Your task to perform on an android device: Open the stopwatch Image 0: 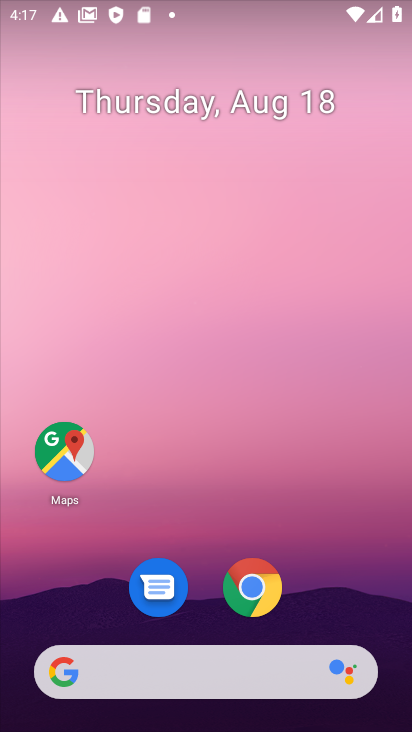
Step 0: press home button
Your task to perform on an android device: Open the stopwatch Image 1: 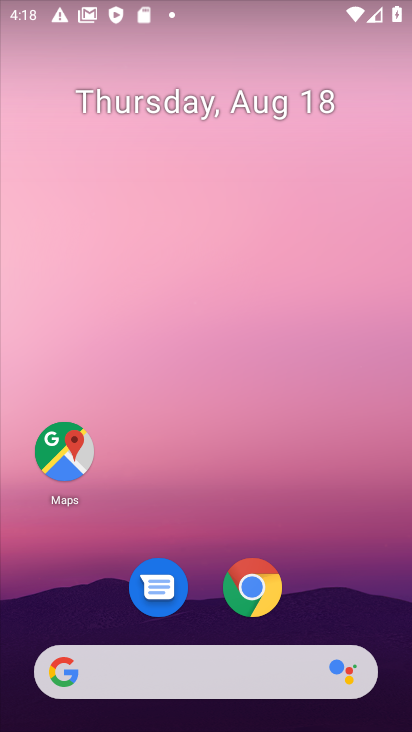
Step 1: drag from (302, 459) to (301, 52)
Your task to perform on an android device: Open the stopwatch Image 2: 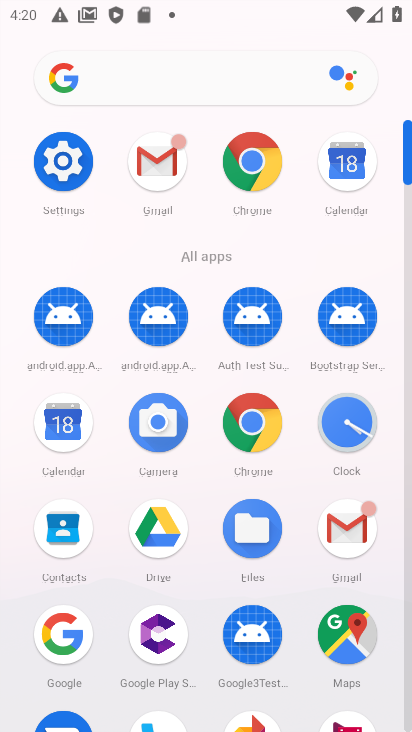
Step 2: click (352, 424)
Your task to perform on an android device: Open the stopwatch Image 3: 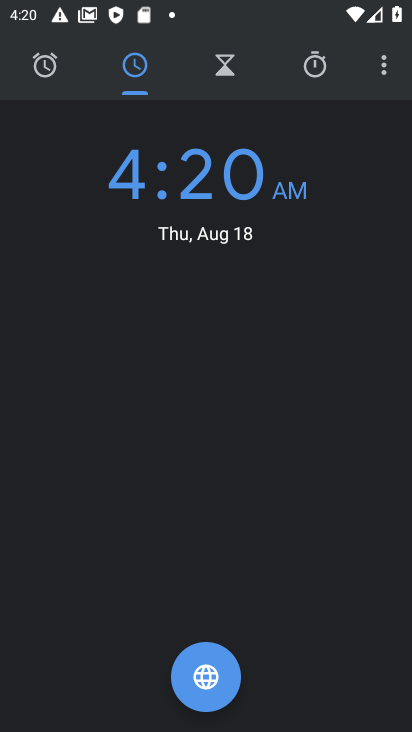
Step 3: click (304, 73)
Your task to perform on an android device: Open the stopwatch Image 4: 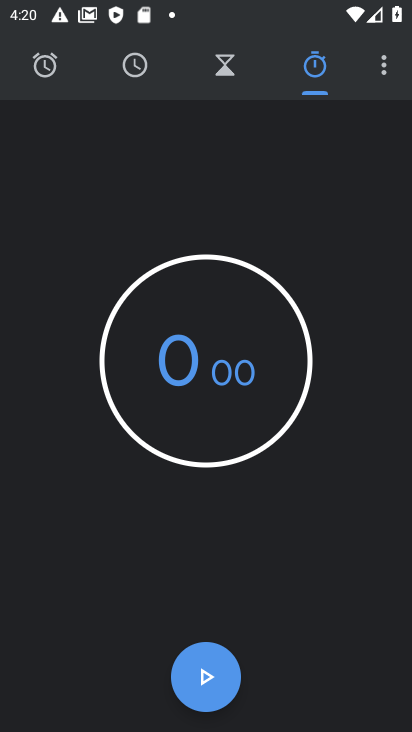
Step 4: click (201, 675)
Your task to perform on an android device: Open the stopwatch Image 5: 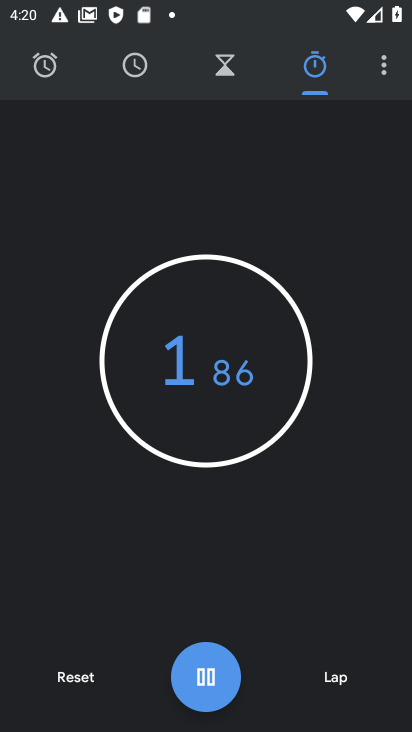
Step 5: task complete